Your task to perform on an android device: toggle javascript in the chrome app Image 0: 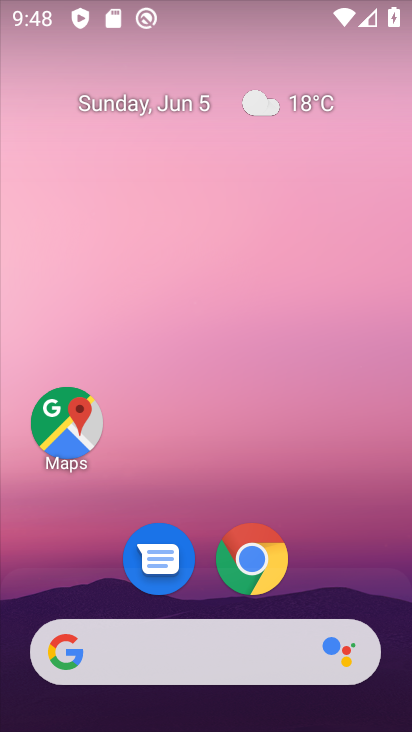
Step 0: drag from (312, 583) to (318, 55)
Your task to perform on an android device: toggle javascript in the chrome app Image 1: 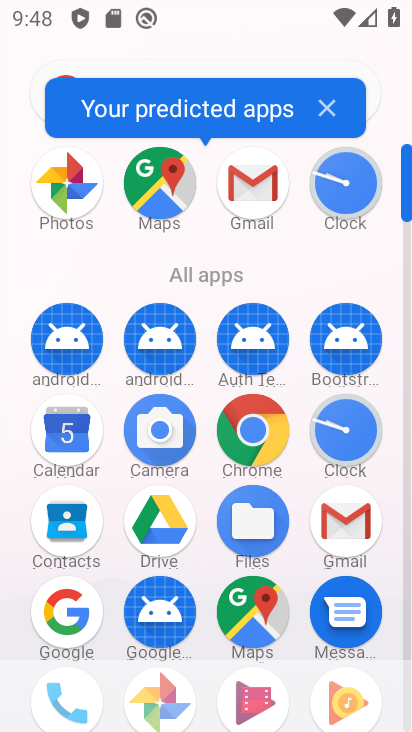
Step 1: click (259, 420)
Your task to perform on an android device: toggle javascript in the chrome app Image 2: 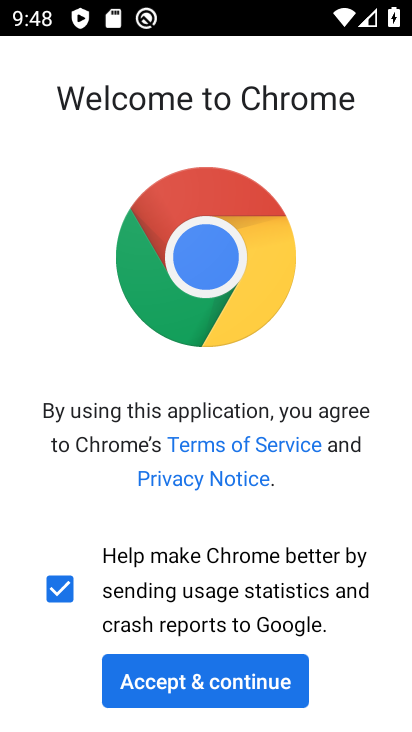
Step 2: click (237, 675)
Your task to perform on an android device: toggle javascript in the chrome app Image 3: 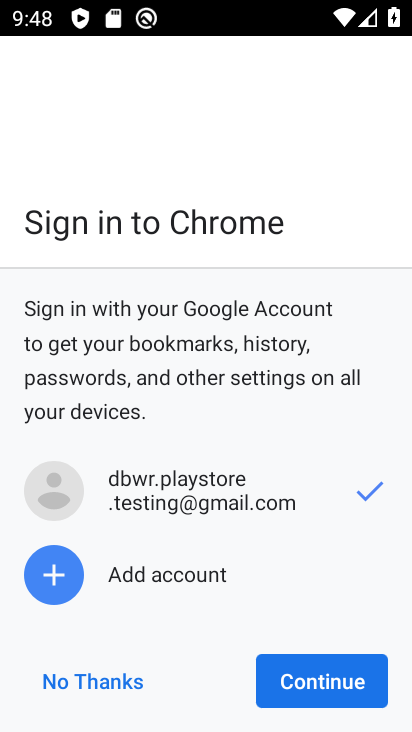
Step 3: click (309, 675)
Your task to perform on an android device: toggle javascript in the chrome app Image 4: 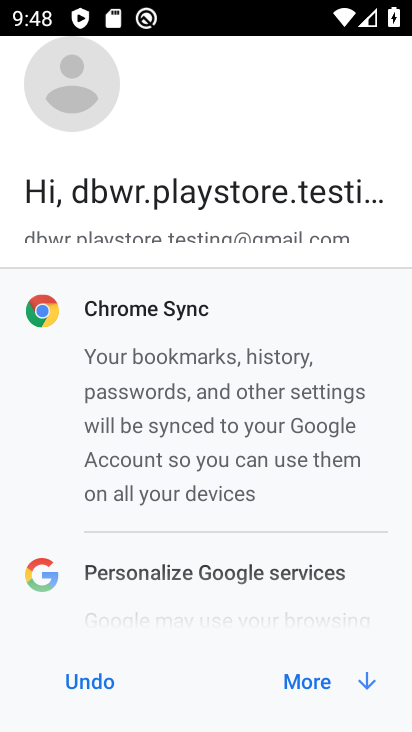
Step 4: click (309, 673)
Your task to perform on an android device: toggle javascript in the chrome app Image 5: 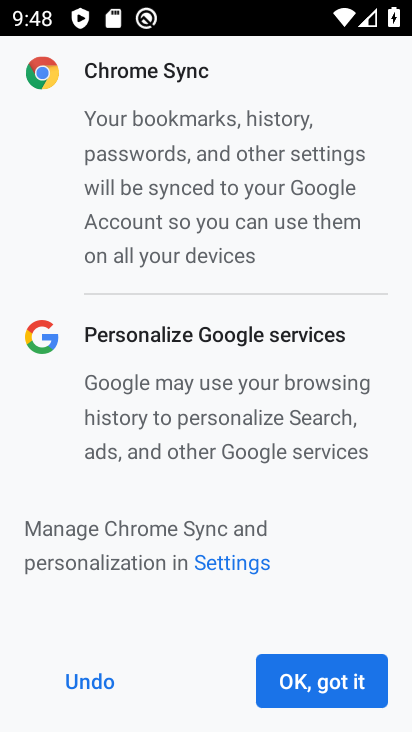
Step 5: click (309, 673)
Your task to perform on an android device: toggle javascript in the chrome app Image 6: 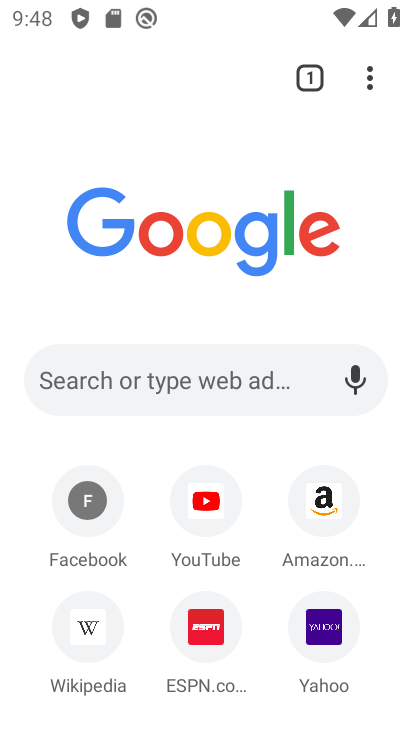
Step 6: drag from (366, 77) to (105, 615)
Your task to perform on an android device: toggle javascript in the chrome app Image 7: 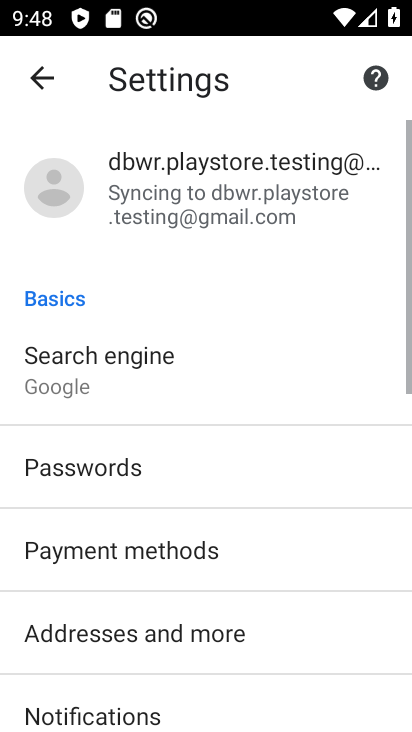
Step 7: drag from (343, 704) to (341, 237)
Your task to perform on an android device: toggle javascript in the chrome app Image 8: 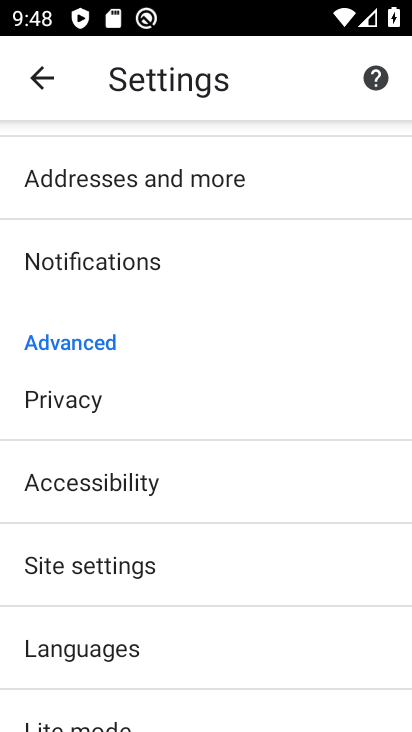
Step 8: click (126, 564)
Your task to perform on an android device: toggle javascript in the chrome app Image 9: 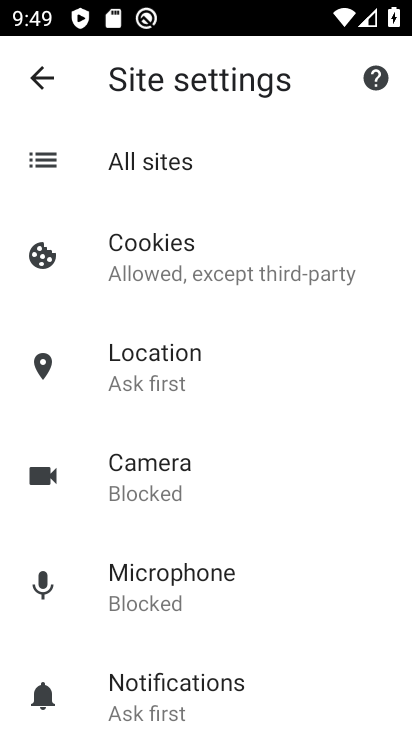
Step 9: drag from (314, 670) to (314, 240)
Your task to perform on an android device: toggle javascript in the chrome app Image 10: 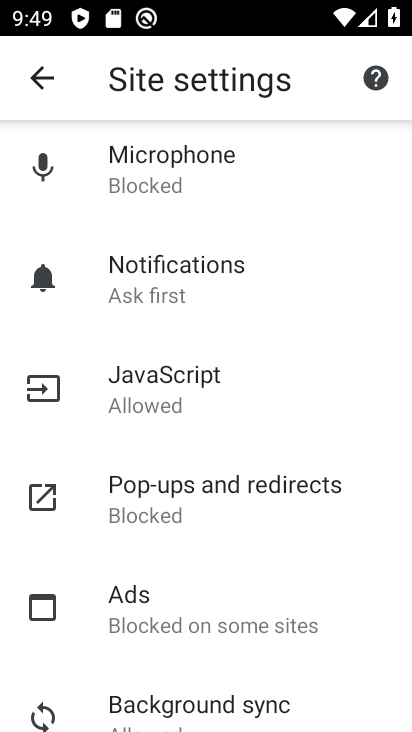
Step 10: click (175, 385)
Your task to perform on an android device: toggle javascript in the chrome app Image 11: 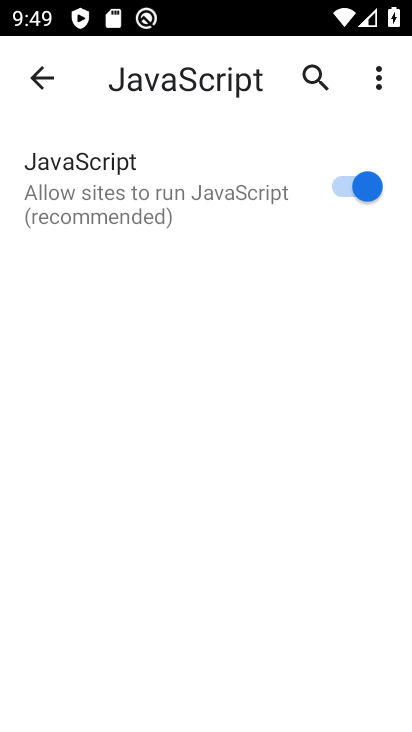
Step 11: click (361, 186)
Your task to perform on an android device: toggle javascript in the chrome app Image 12: 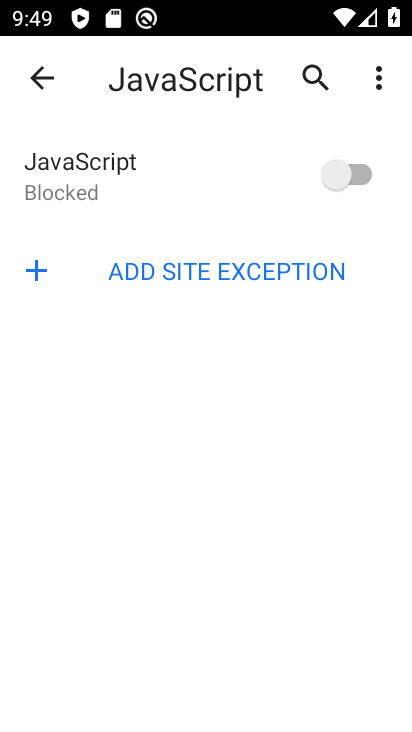
Step 12: task complete